Your task to perform on an android device: turn off sleep mode Image 0: 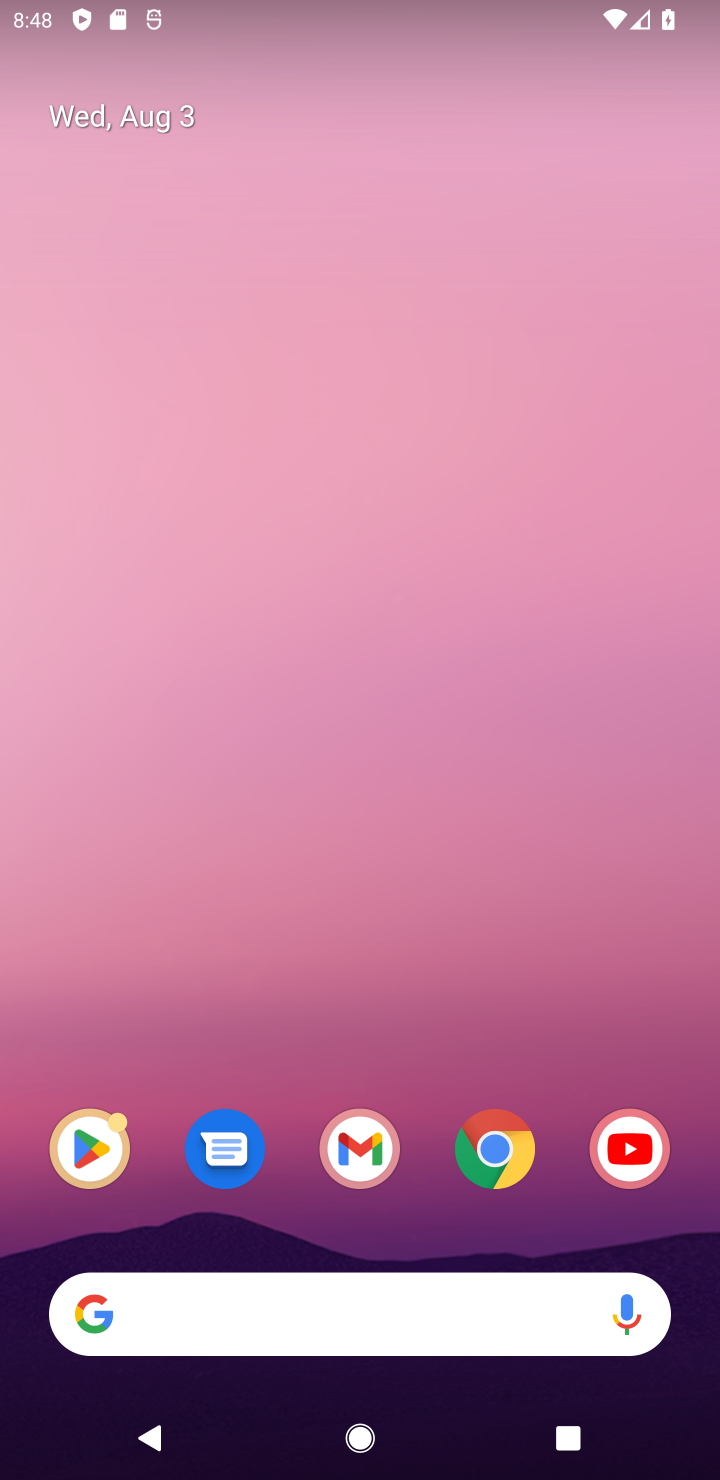
Step 0: drag from (321, 1066) to (104, 83)
Your task to perform on an android device: turn off sleep mode Image 1: 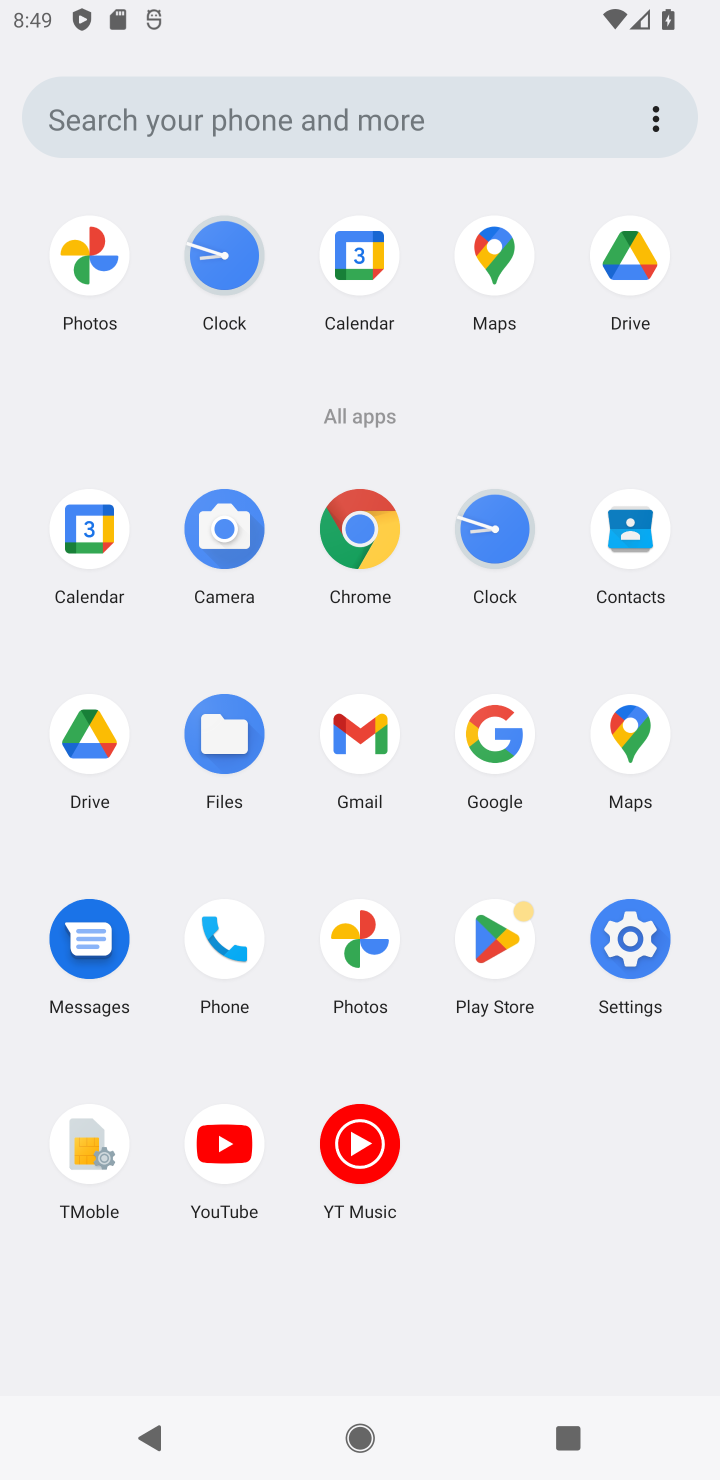
Step 1: click (630, 937)
Your task to perform on an android device: turn off sleep mode Image 2: 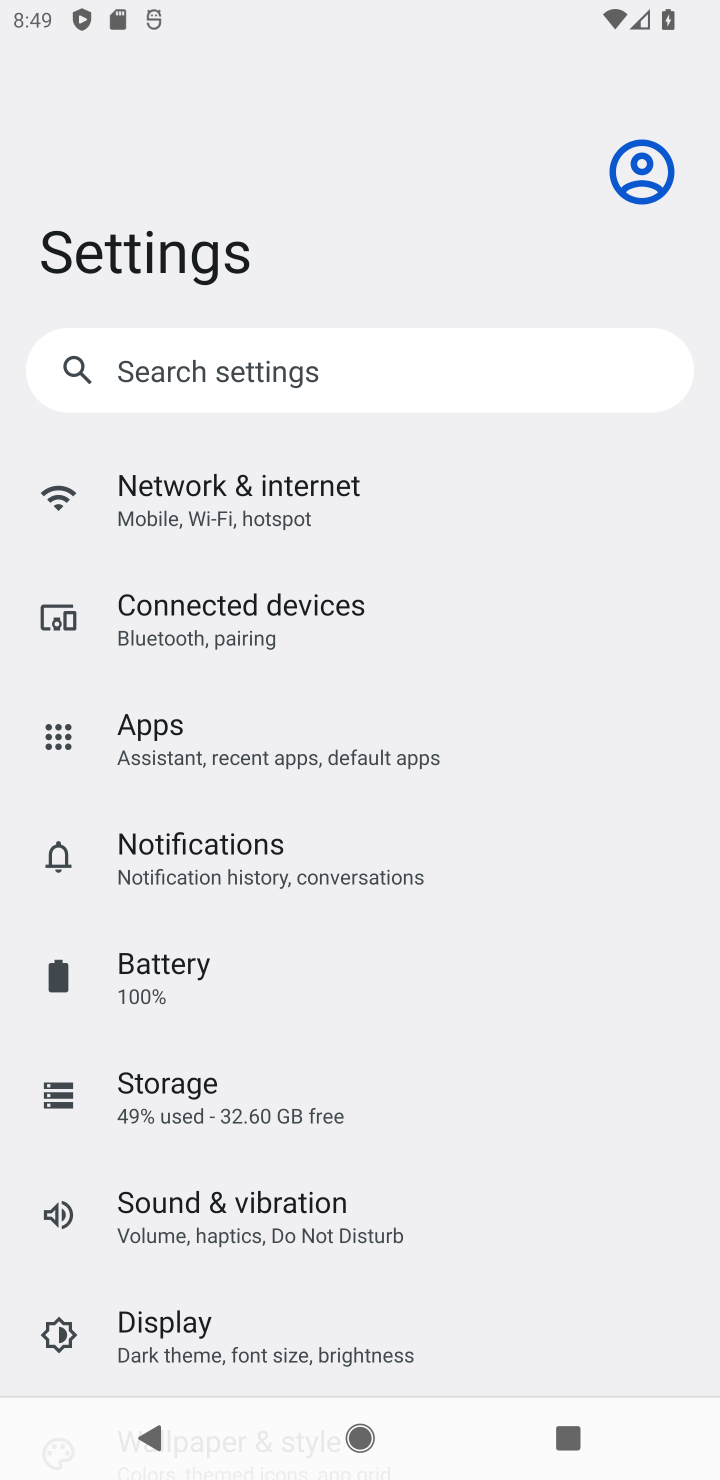
Step 2: click (263, 1335)
Your task to perform on an android device: turn off sleep mode Image 3: 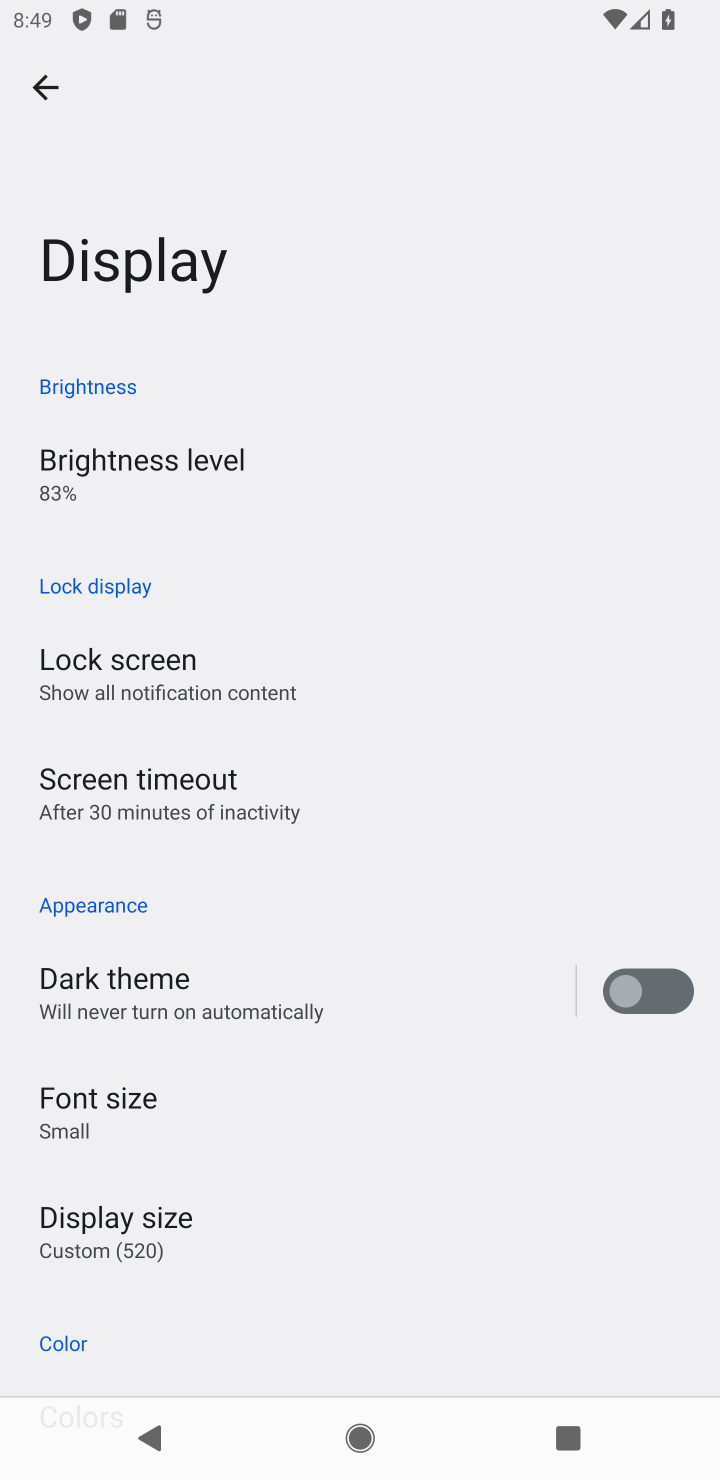
Step 3: task complete